Your task to perform on an android device: Search for "acer predator" on bestbuy.com, select the first entry, add it to the cart, then select checkout. Image 0: 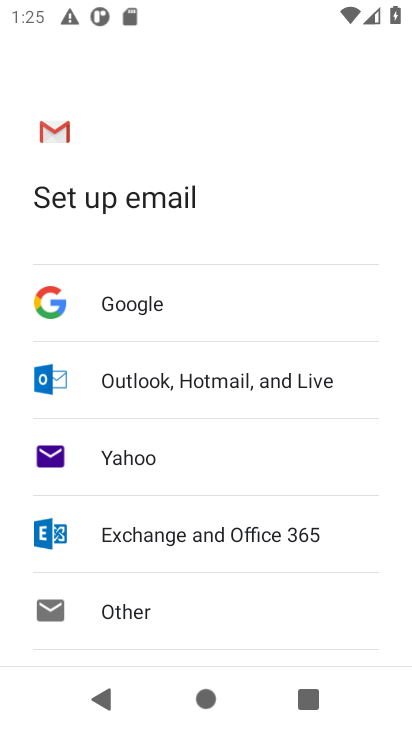
Step 0: press home button
Your task to perform on an android device: Search for "acer predator" on bestbuy.com, select the first entry, add it to the cart, then select checkout. Image 1: 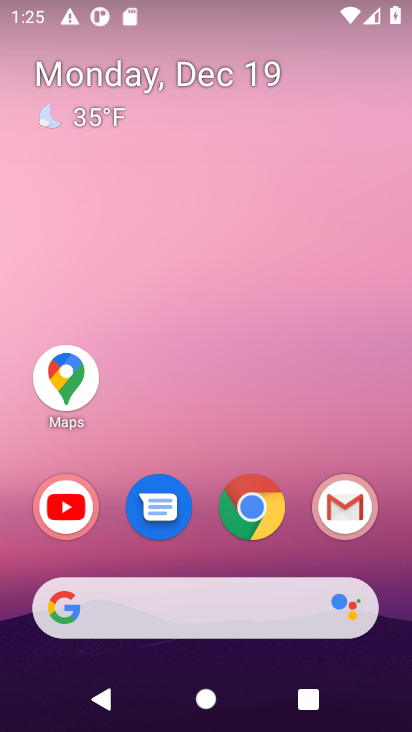
Step 1: click (251, 510)
Your task to perform on an android device: Search for "acer predator" on bestbuy.com, select the first entry, add it to the cart, then select checkout. Image 2: 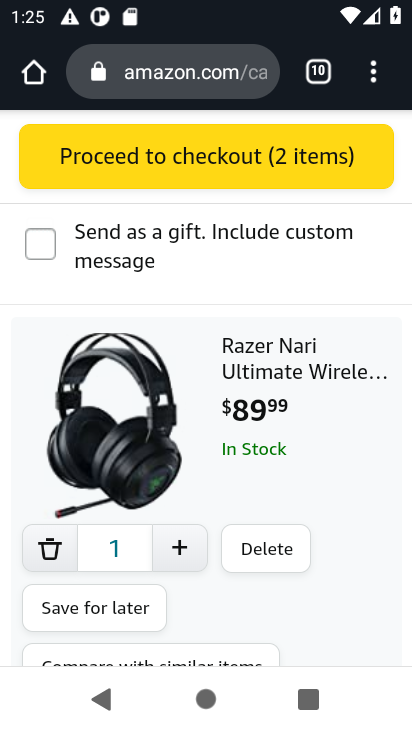
Step 2: click (168, 78)
Your task to perform on an android device: Search for "acer predator" on bestbuy.com, select the first entry, add it to the cart, then select checkout. Image 3: 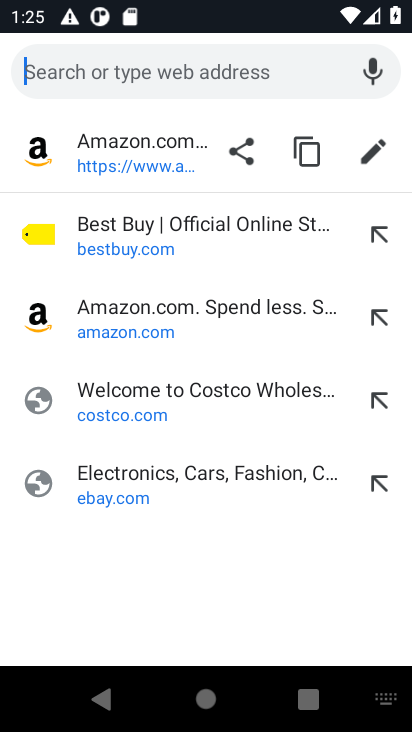
Step 3: click (105, 248)
Your task to perform on an android device: Search for "acer predator" on bestbuy.com, select the first entry, add it to the cart, then select checkout. Image 4: 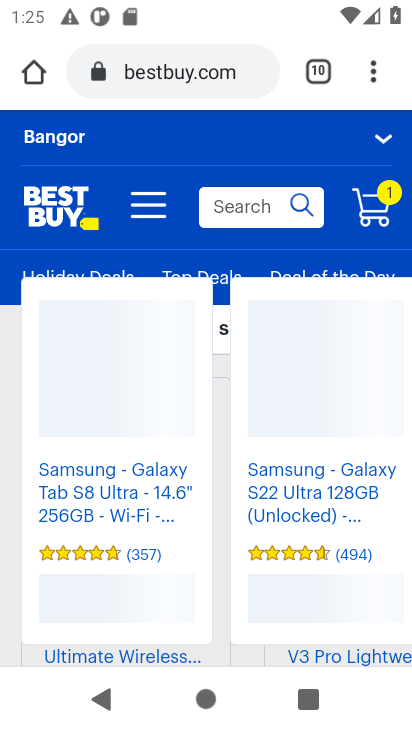
Step 4: click (237, 207)
Your task to perform on an android device: Search for "acer predator" on bestbuy.com, select the first entry, add it to the cart, then select checkout. Image 5: 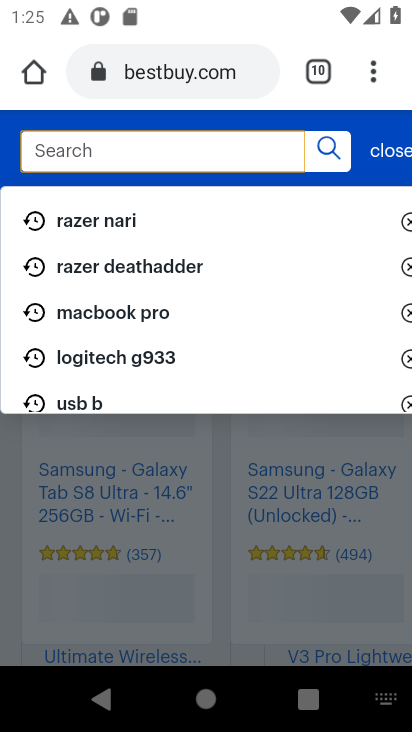
Step 5: type "acer predator"
Your task to perform on an android device: Search for "acer predator" on bestbuy.com, select the first entry, add it to the cart, then select checkout. Image 6: 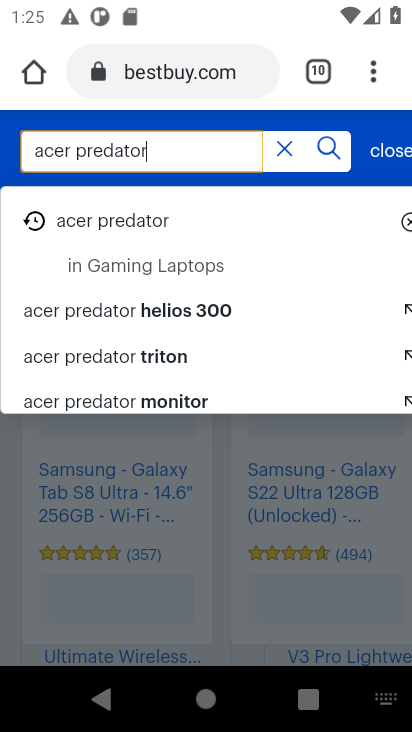
Step 6: click (117, 226)
Your task to perform on an android device: Search for "acer predator" on bestbuy.com, select the first entry, add it to the cart, then select checkout. Image 7: 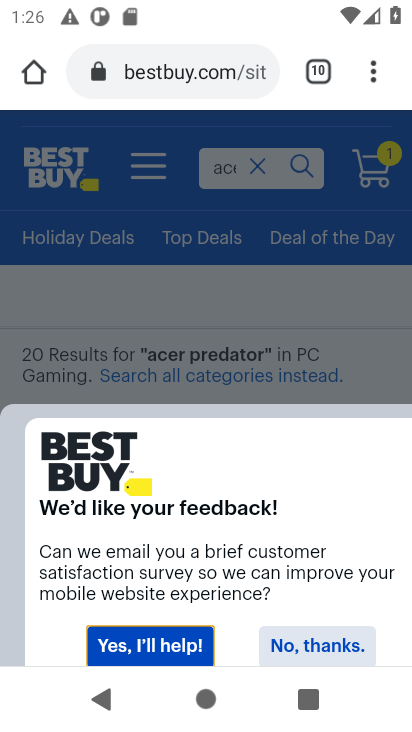
Step 7: click (285, 644)
Your task to perform on an android device: Search for "acer predator" on bestbuy.com, select the first entry, add it to the cart, then select checkout. Image 8: 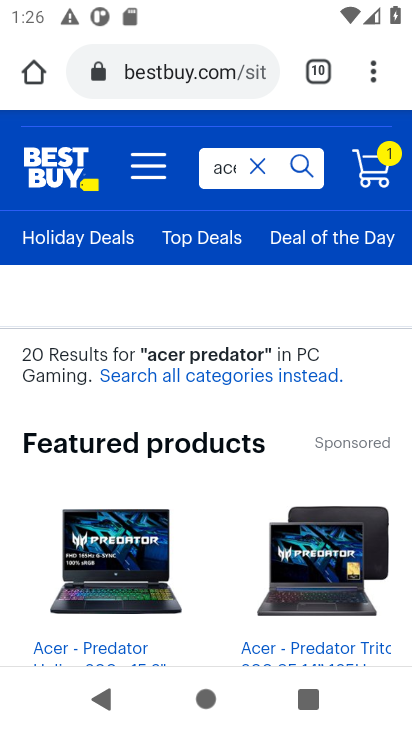
Step 8: drag from (141, 469) to (137, 186)
Your task to perform on an android device: Search for "acer predator" on bestbuy.com, select the first entry, add it to the cart, then select checkout. Image 9: 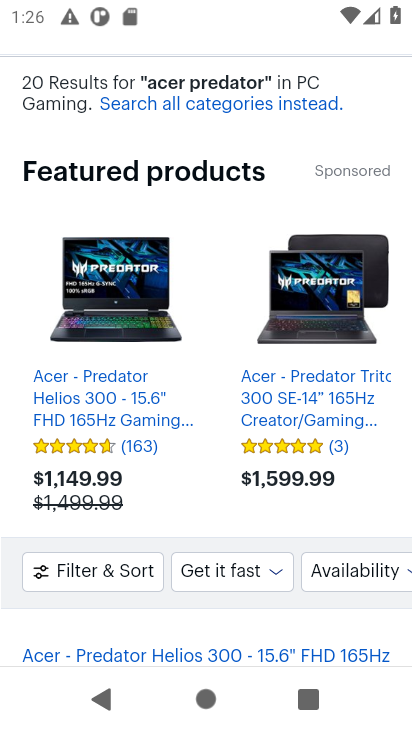
Step 9: drag from (124, 448) to (132, 111)
Your task to perform on an android device: Search for "acer predator" on bestbuy.com, select the first entry, add it to the cart, then select checkout. Image 10: 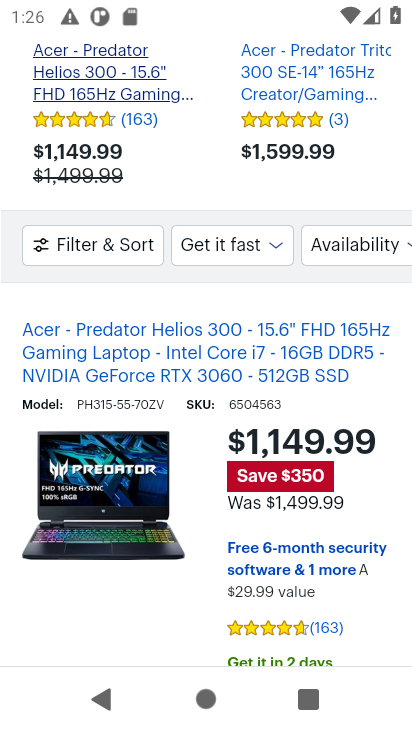
Step 10: drag from (140, 442) to (141, 254)
Your task to perform on an android device: Search for "acer predator" on bestbuy.com, select the first entry, add it to the cart, then select checkout. Image 11: 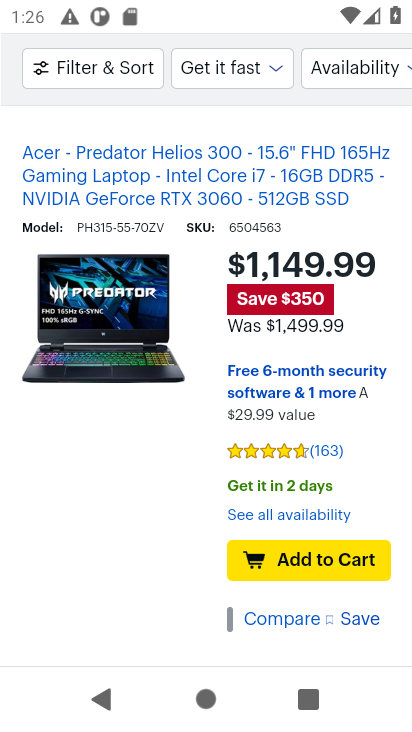
Step 11: click (284, 565)
Your task to perform on an android device: Search for "acer predator" on bestbuy.com, select the first entry, add it to the cart, then select checkout. Image 12: 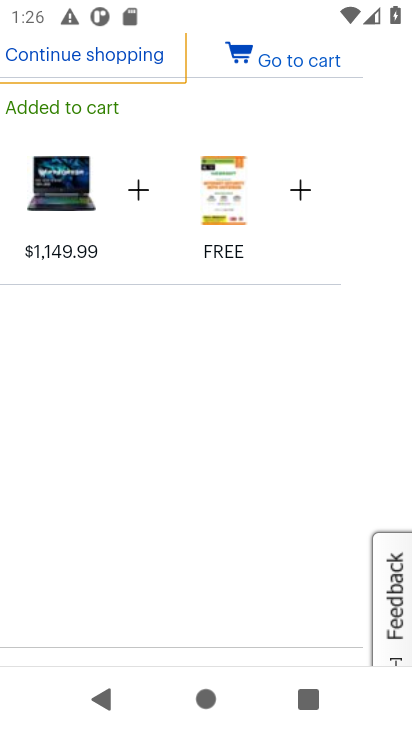
Step 12: click (291, 64)
Your task to perform on an android device: Search for "acer predator" on bestbuy.com, select the first entry, add it to the cart, then select checkout. Image 13: 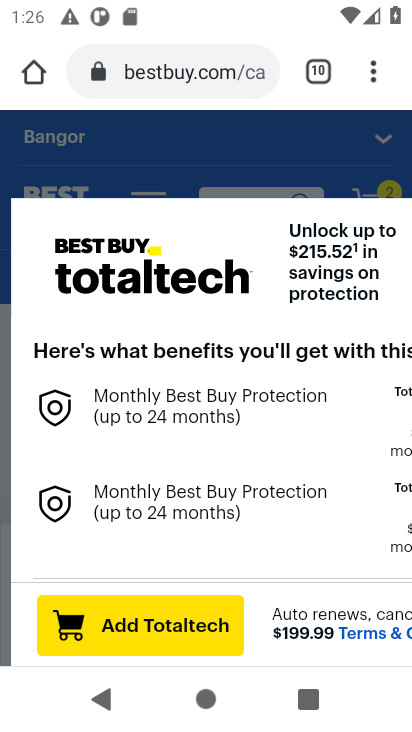
Step 13: click (321, 158)
Your task to perform on an android device: Search for "acer predator" on bestbuy.com, select the first entry, add it to the cart, then select checkout. Image 14: 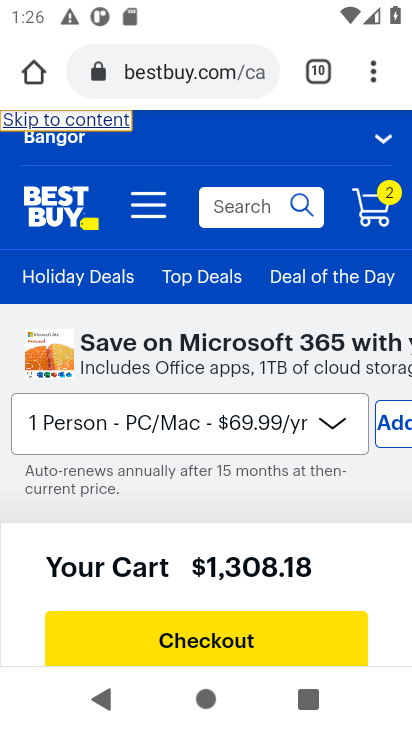
Step 14: click (192, 635)
Your task to perform on an android device: Search for "acer predator" on bestbuy.com, select the first entry, add it to the cart, then select checkout. Image 15: 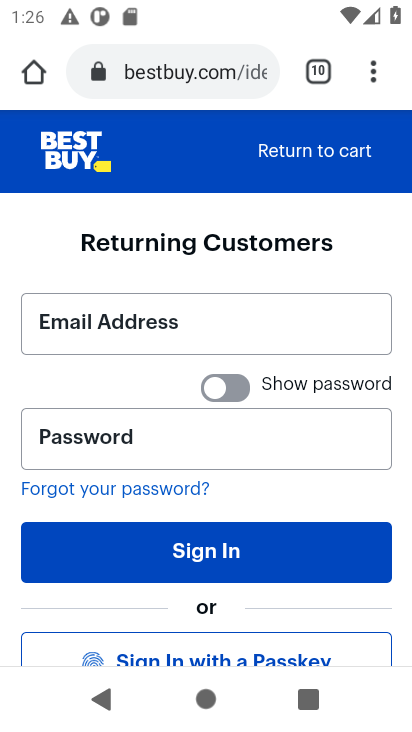
Step 15: task complete